Your task to perform on an android device: check out phone information Image 0: 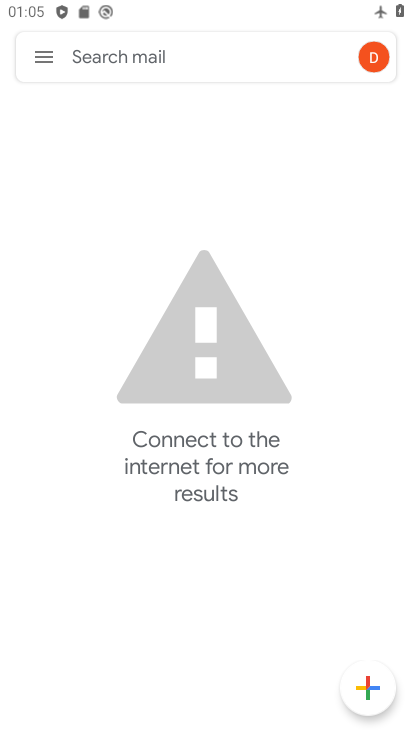
Step 0: press home button
Your task to perform on an android device: check out phone information Image 1: 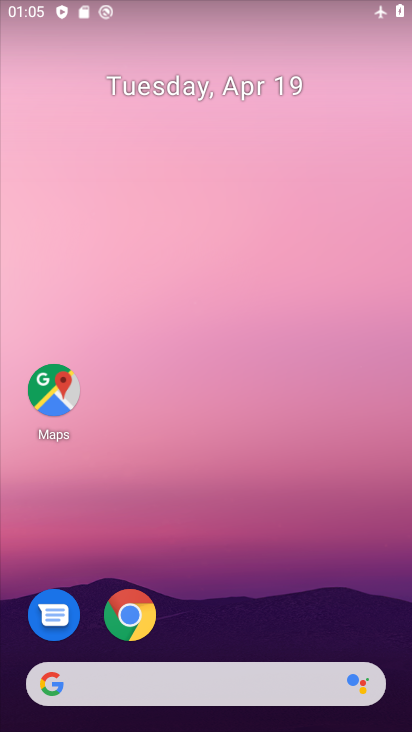
Step 1: drag from (278, 475) to (278, 138)
Your task to perform on an android device: check out phone information Image 2: 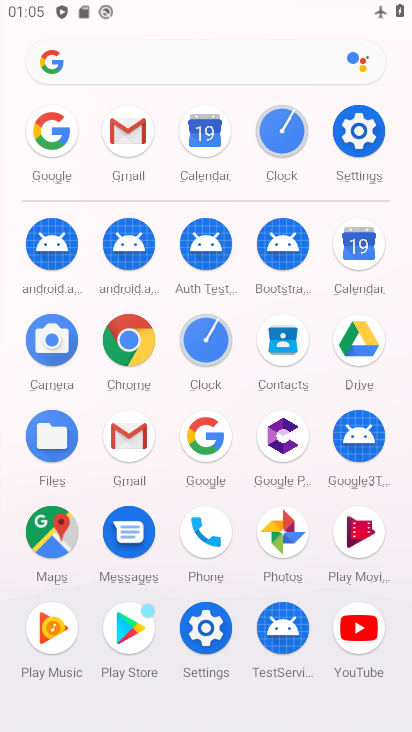
Step 2: click (201, 543)
Your task to perform on an android device: check out phone information Image 3: 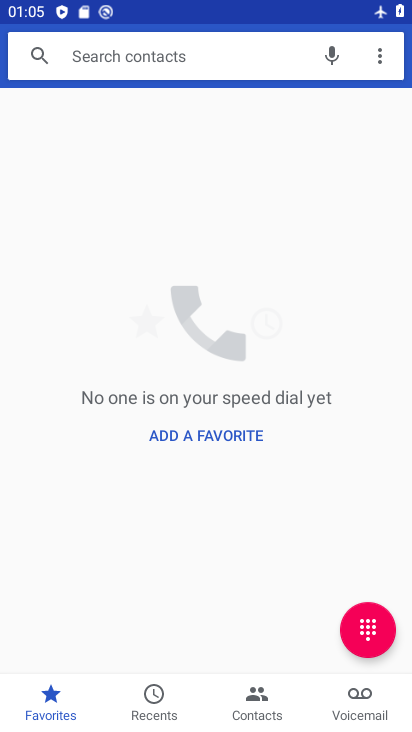
Step 3: click (374, 46)
Your task to perform on an android device: check out phone information Image 4: 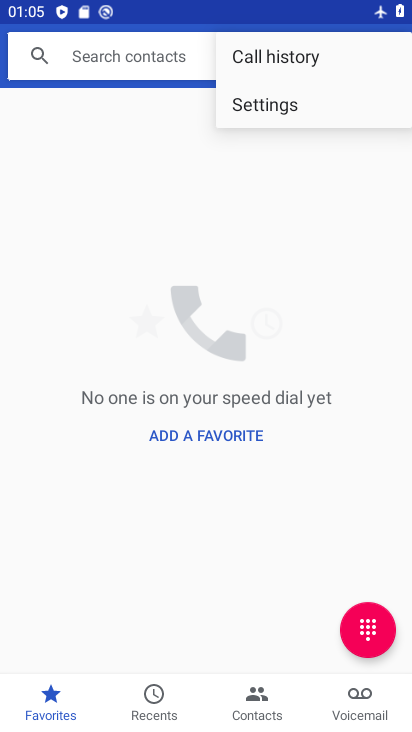
Step 4: click (313, 109)
Your task to perform on an android device: check out phone information Image 5: 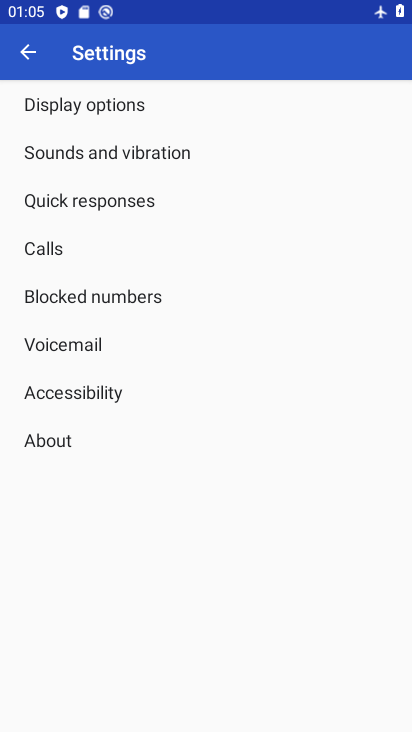
Step 5: click (41, 450)
Your task to perform on an android device: check out phone information Image 6: 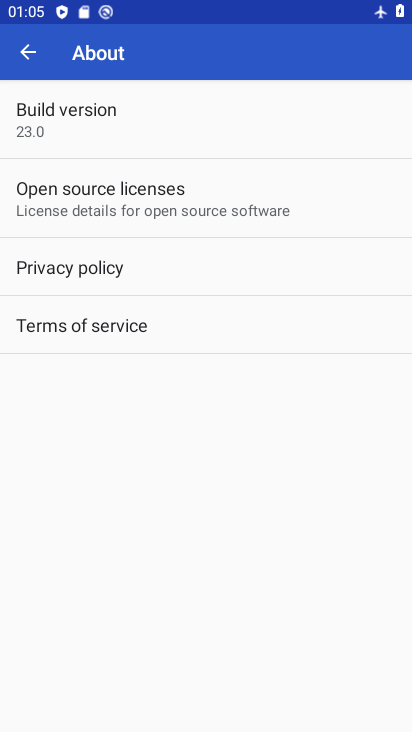
Step 6: click (172, 106)
Your task to perform on an android device: check out phone information Image 7: 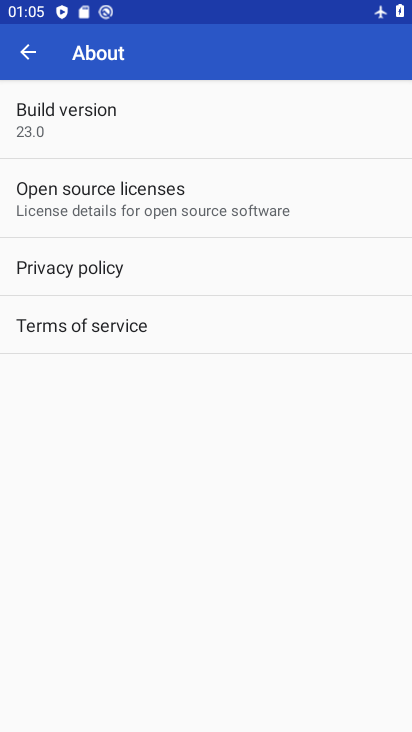
Step 7: task complete